Your task to perform on an android device: change the upload size in google photos Image 0: 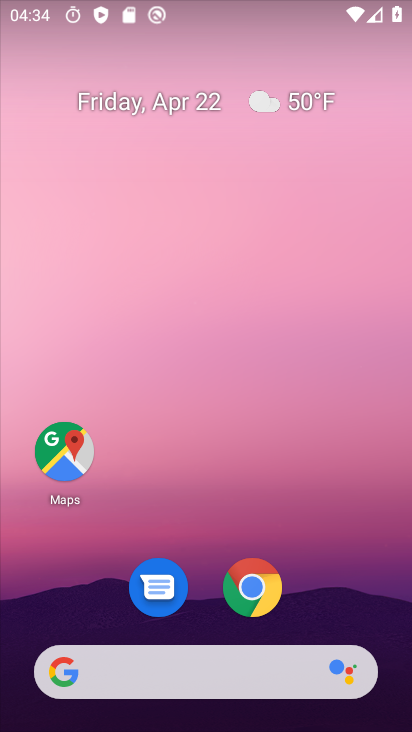
Step 0: drag from (399, 615) to (397, 9)
Your task to perform on an android device: change the upload size in google photos Image 1: 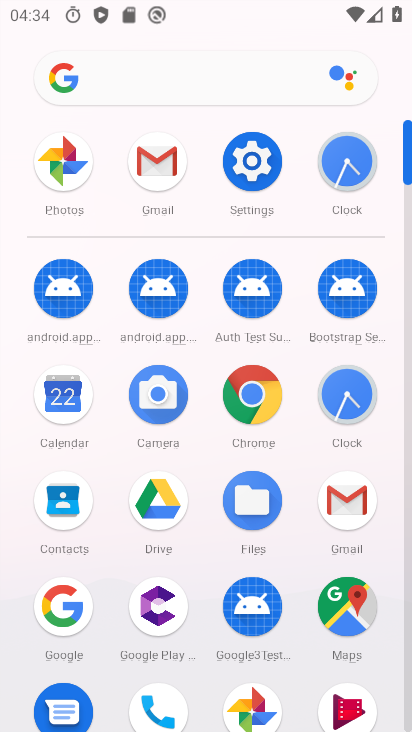
Step 1: click (62, 172)
Your task to perform on an android device: change the upload size in google photos Image 2: 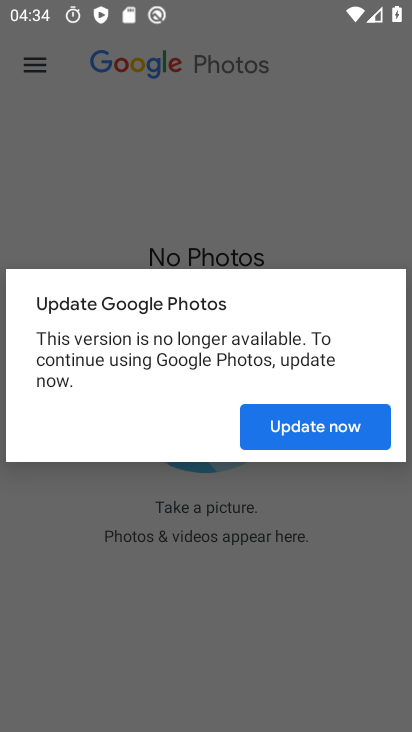
Step 2: click (271, 422)
Your task to perform on an android device: change the upload size in google photos Image 3: 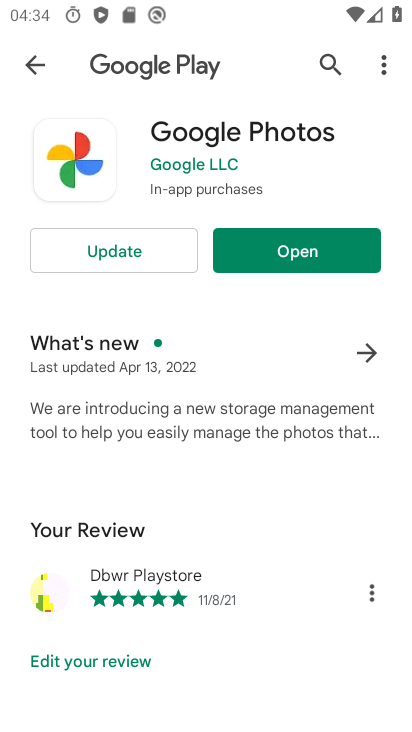
Step 3: click (284, 260)
Your task to perform on an android device: change the upload size in google photos Image 4: 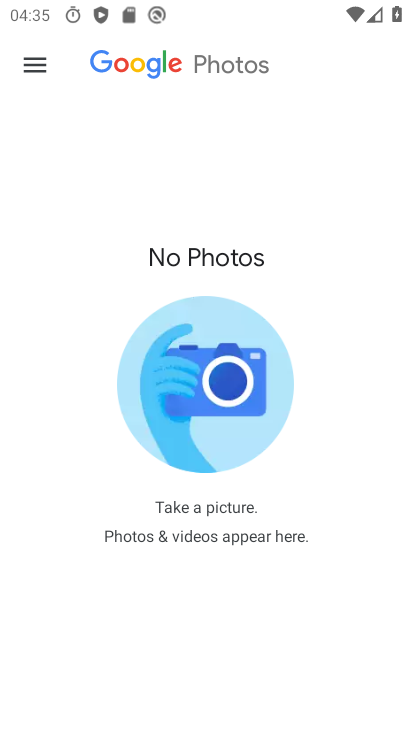
Step 4: press back button
Your task to perform on an android device: change the upload size in google photos Image 5: 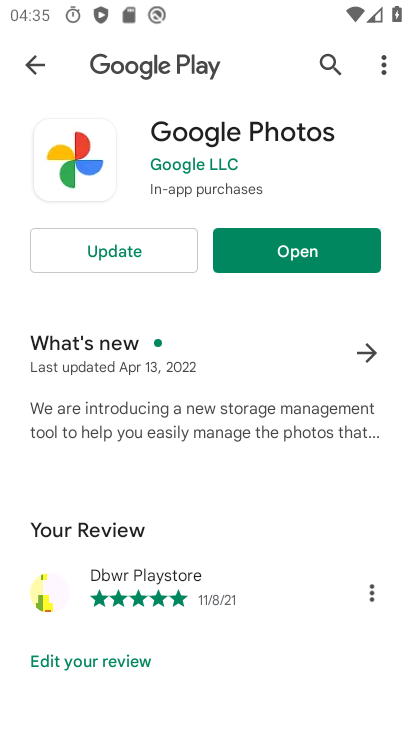
Step 5: click (145, 264)
Your task to perform on an android device: change the upload size in google photos Image 6: 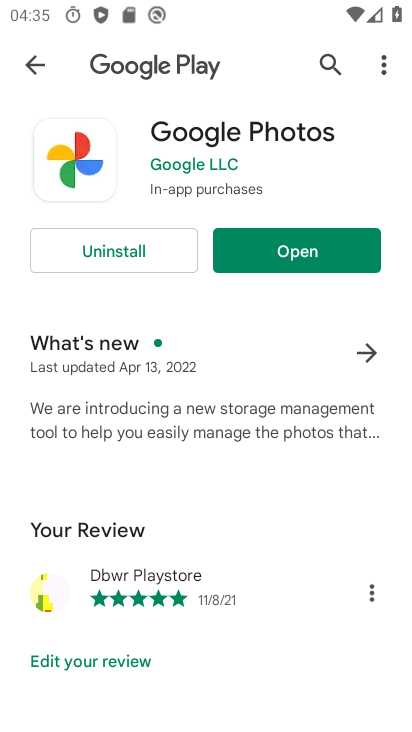
Step 6: click (250, 264)
Your task to perform on an android device: change the upload size in google photos Image 7: 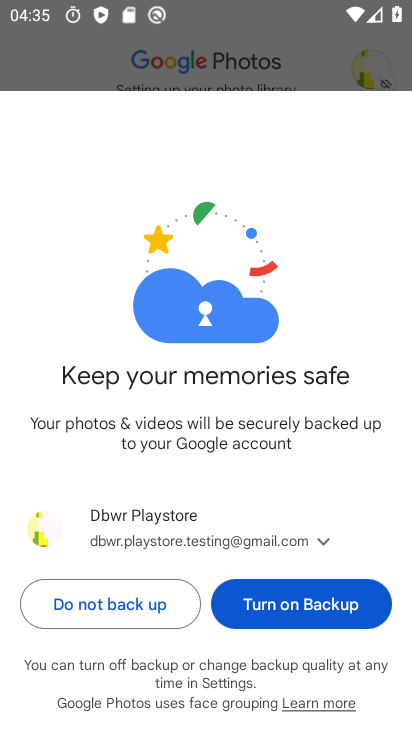
Step 7: click (246, 605)
Your task to perform on an android device: change the upload size in google photos Image 8: 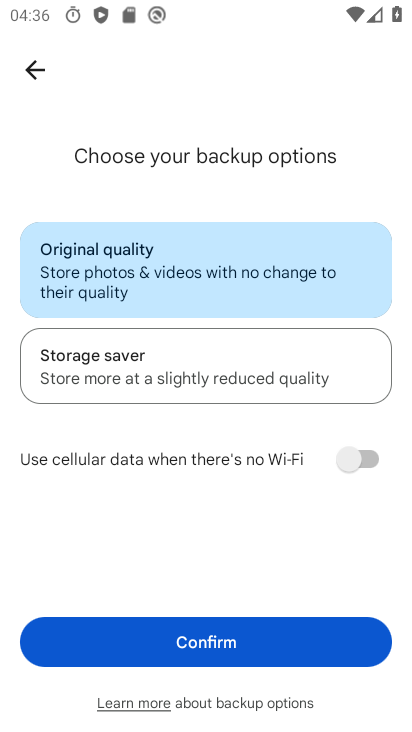
Step 8: click (223, 644)
Your task to perform on an android device: change the upload size in google photos Image 9: 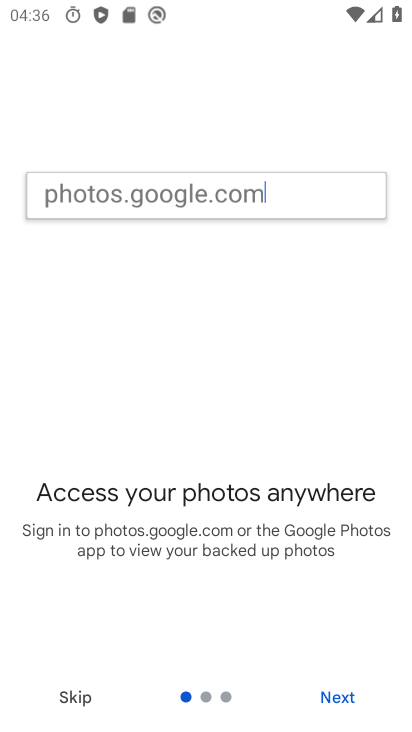
Step 9: click (83, 699)
Your task to perform on an android device: change the upload size in google photos Image 10: 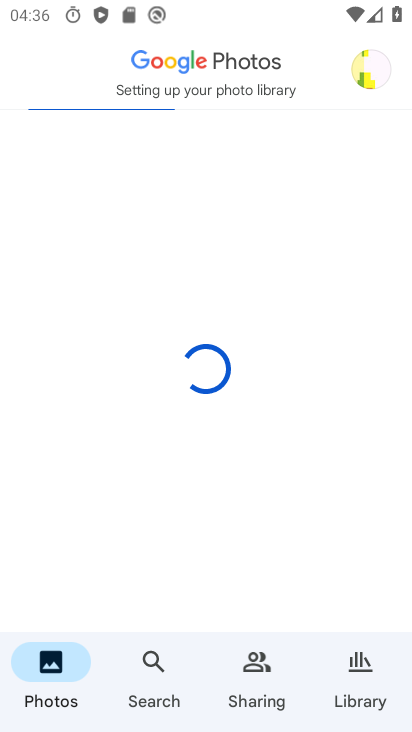
Step 10: click (368, 83)
Your task to perform on an android device: change the upload size in google photos Image 11: 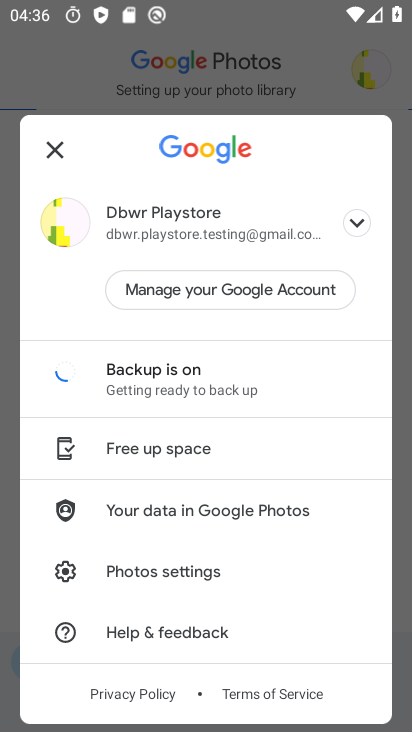
Step 11: click (184, 383)
Your task to perform on an android device: change the upload size in google photos Image 12: 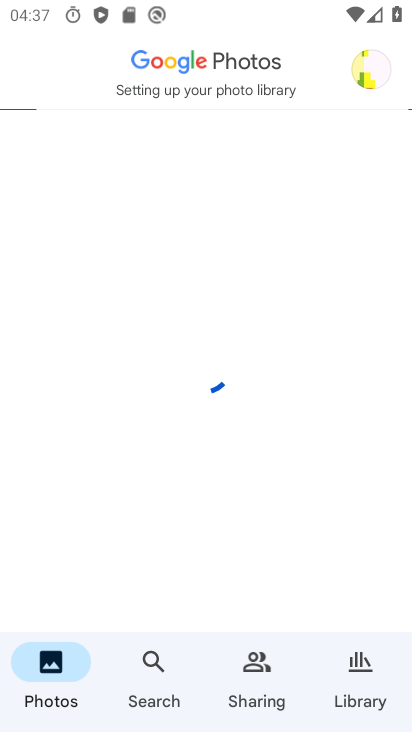
Step 12: click (361, 72)
Your task to perform on an android device: change the upload size in google photos Image 13: 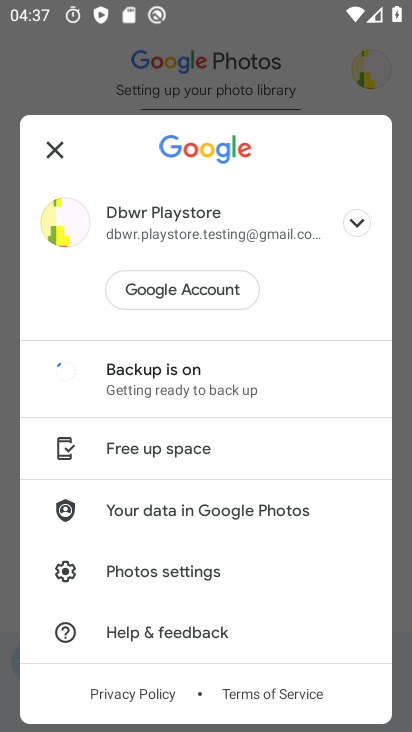
Step 13: click (138, 384)
Your task to perform on an android device: change the upload size in google photos Image 14: 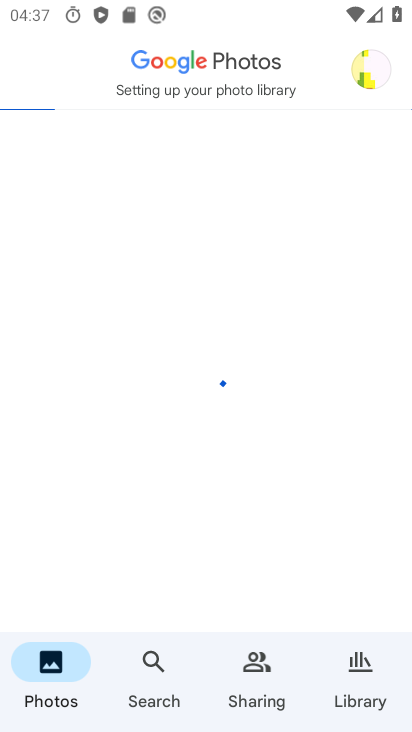
Step 14: click (355, 75)
Your task to perform on an android device: change the upload size in google photos Image 15: 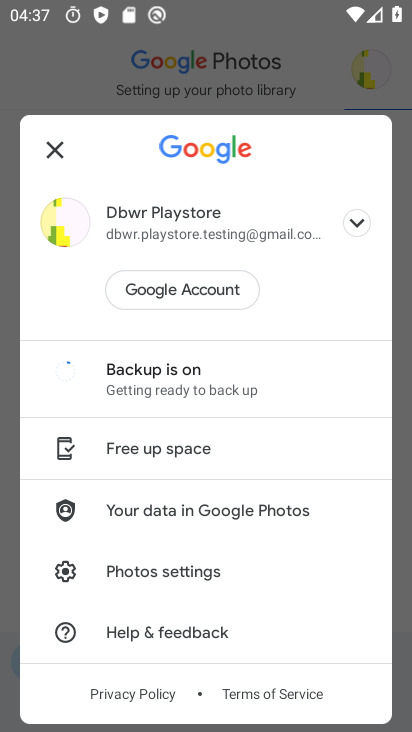
Step 15: click (114, 571)
Your task to perform on an android device: change the upload size in google photos Image 16: 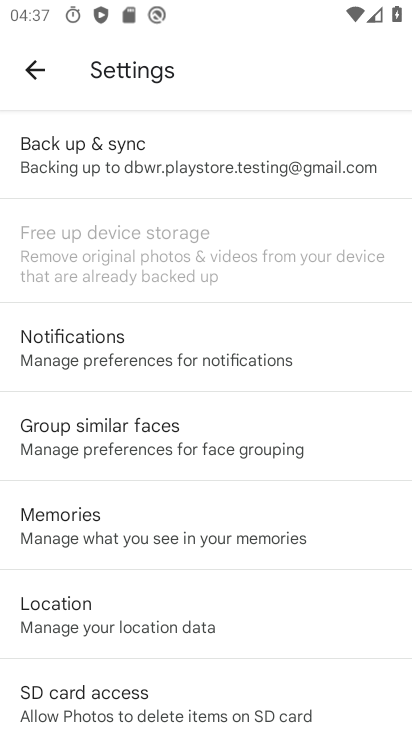
Step 16: click (128, 170)
Your task to perform on an android device: change the upload size in google photos Image 17: 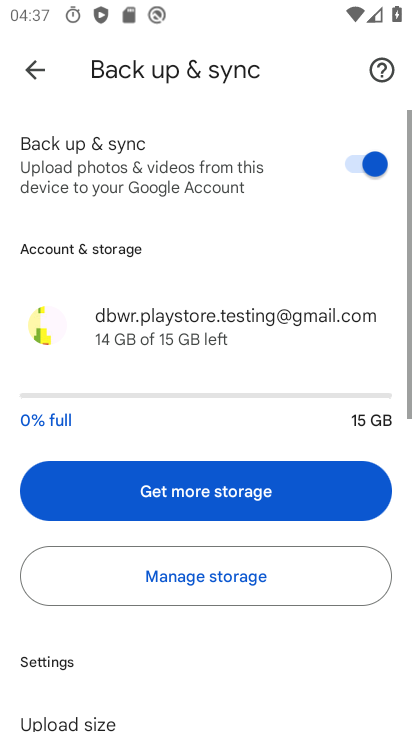
Step 17: drag from (146, 451) to (173, 157)
Your task to perform on an android device: change the upload size in google photos Image 18: 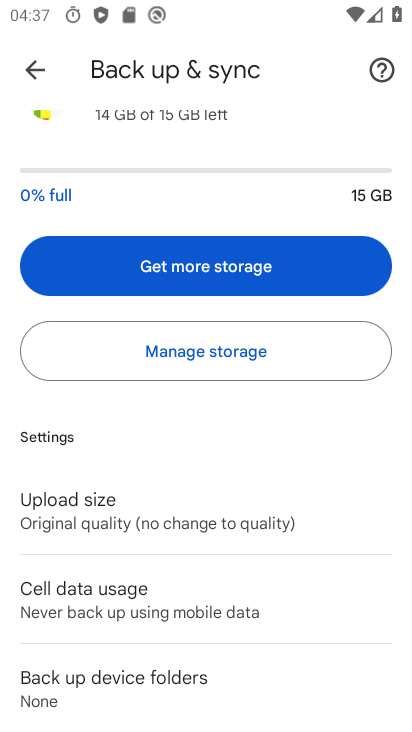
Step 18: click (87, 517)
Your task to perform on an android device: change the upload size in google photos Image 19: 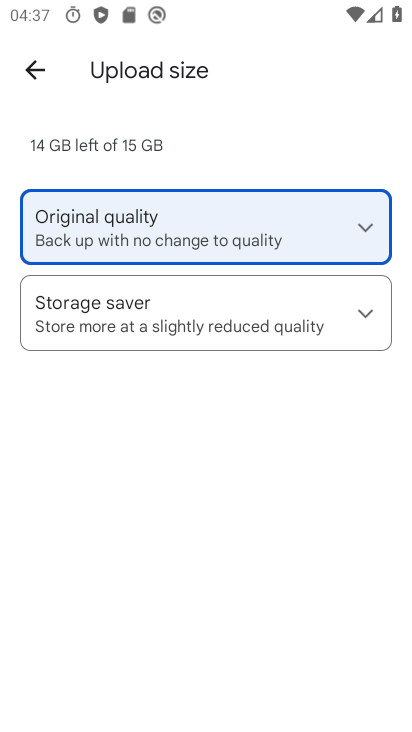
Step 19: click (111, 306)
Your task to perform on an android device: change the upload size in google photos Image 20: 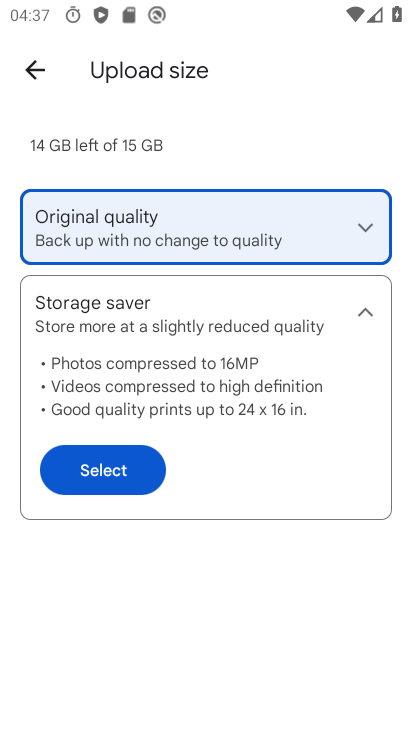
Step 20: click (94, 467)
Your task to perform on an android device: change the upload size in google photos Image 21: 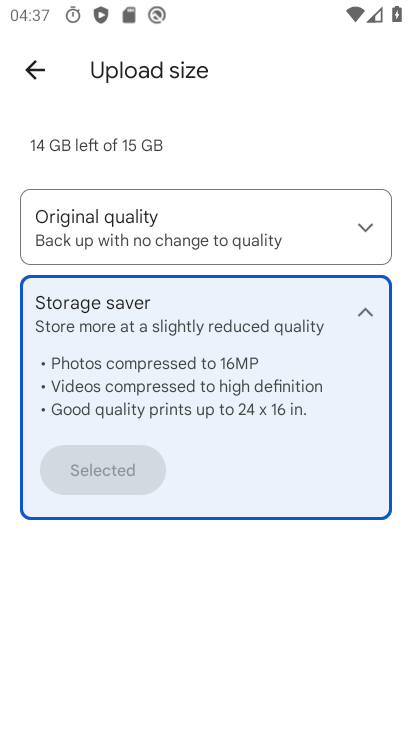
Step 21: task complete